Your task to perform on an android device: Open settings on Google Maps Image 0: 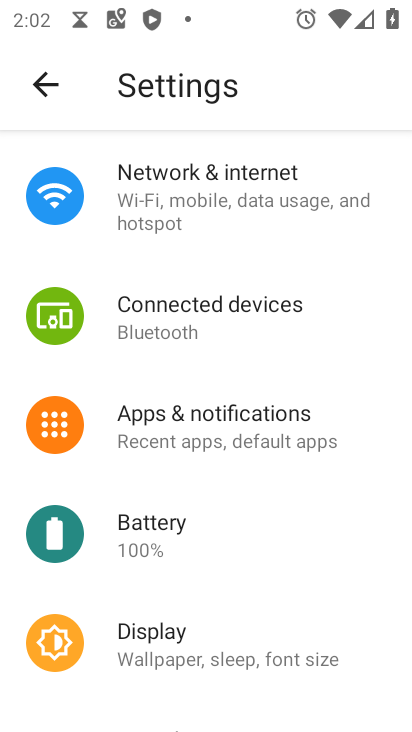
Step 0: press home button
Your task to perform on an android device: Open settings on Google Maps Image 1: 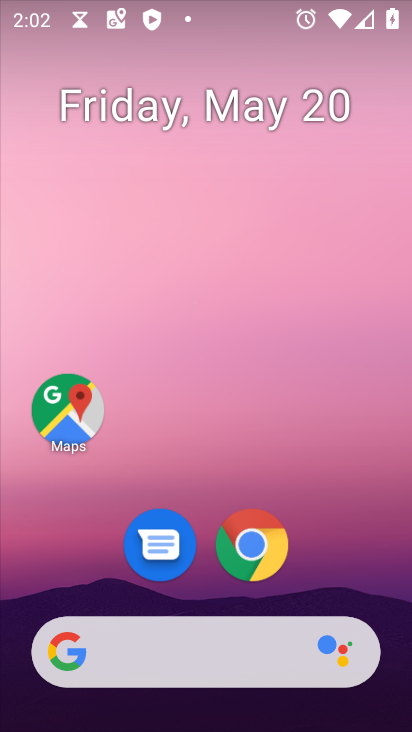
Step 1: click (81, 416)
Your task to perform on an android device: Open settings on Google Maps Image 2: 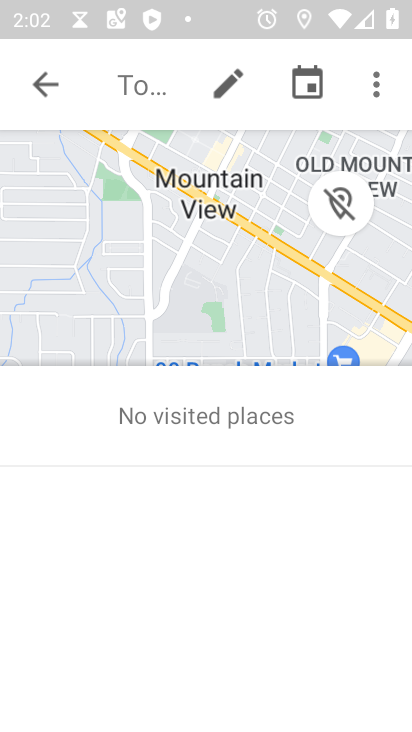
Step 2: click (50, 78)
Your task to perform on an android device: Open settings on Google Maps Image 3: 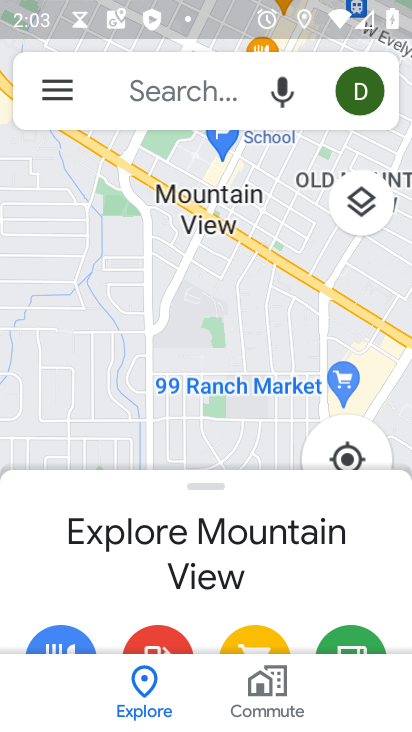
Step 3: click (57, 87)
Your task to perform on an android device: Open settings on Google Maps Image 4: 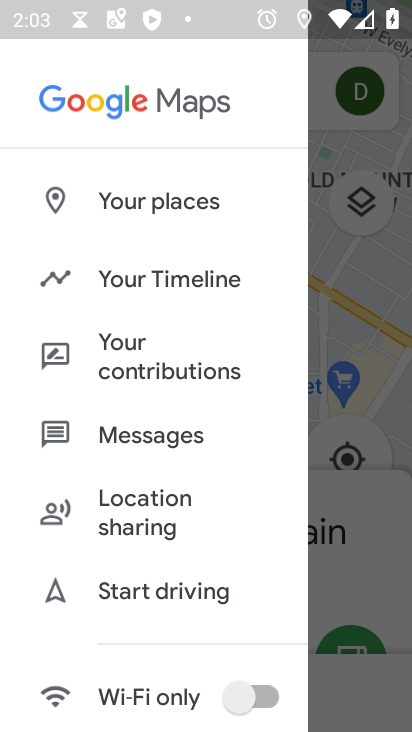
Step 4: drag from (176, 633) to (156, 256)
Your task to perform on an android device: Open settings on Google Maps Image 5: 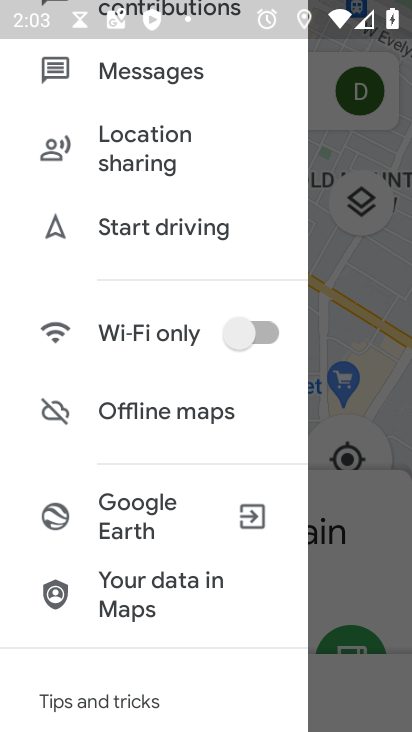
Step 5: drag from (122, 631) to (128, 374)
Your task to perform on an android device: Open settings on Google Maps Image 6: 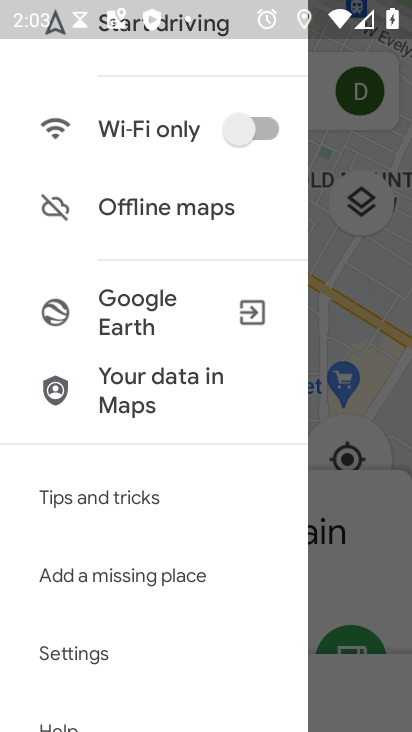
Step 6: click (111, 657)
Your task to perform on an android device: Open settings on Google Maps Image 7: 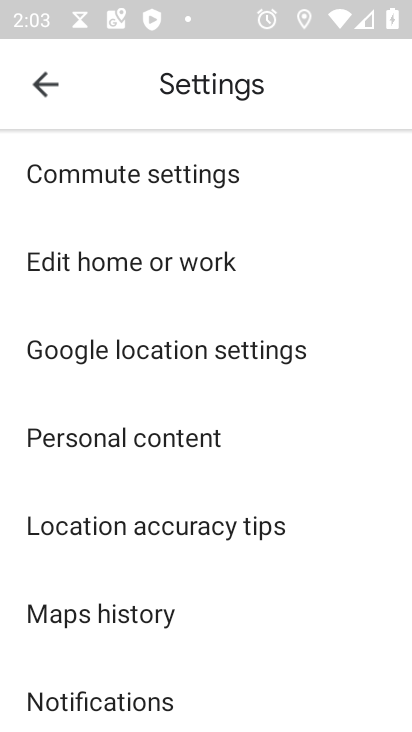
Step 7: task complete